Your task to perform on an android device: Add "apple airpods" to the cart on newegg Image 0: 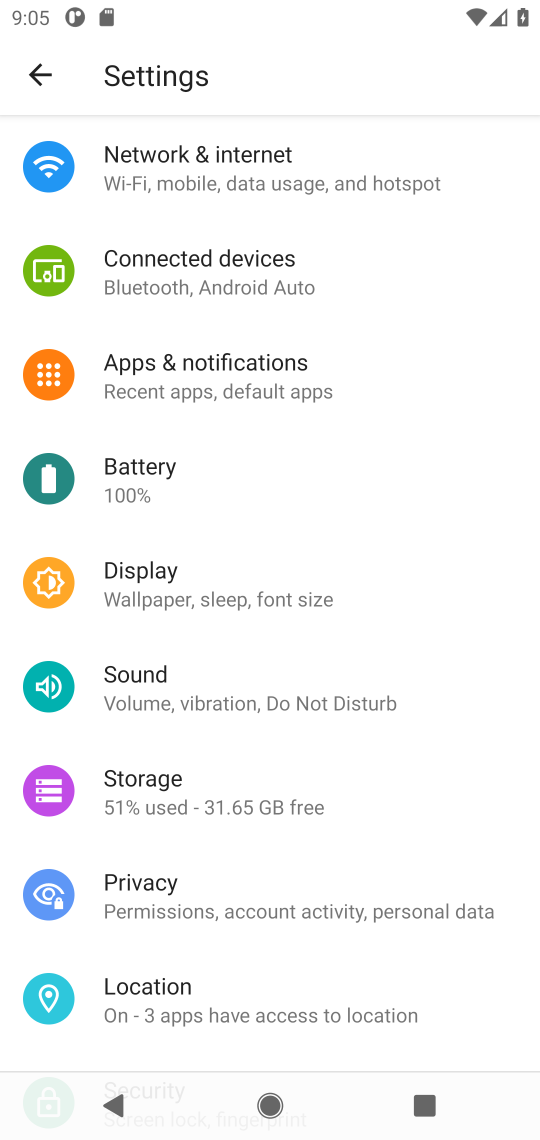
Step 0: task complete